Your task to perform on an android device: toggle wifi Image 0: 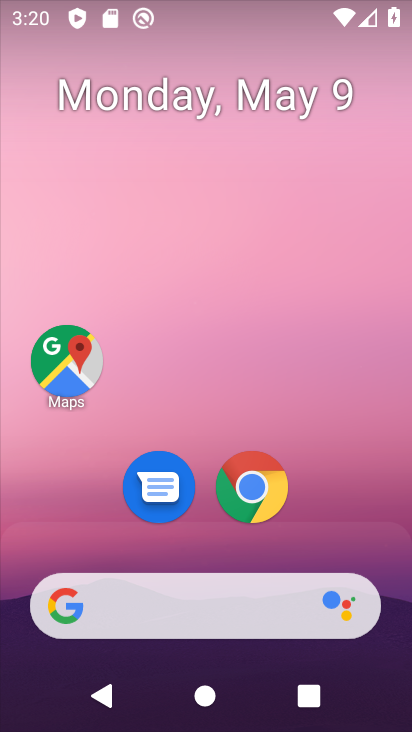
Step 0: drag from (198, 517) to (197, 175)
Your task to perform on an android device: toggle wifi Image 1: 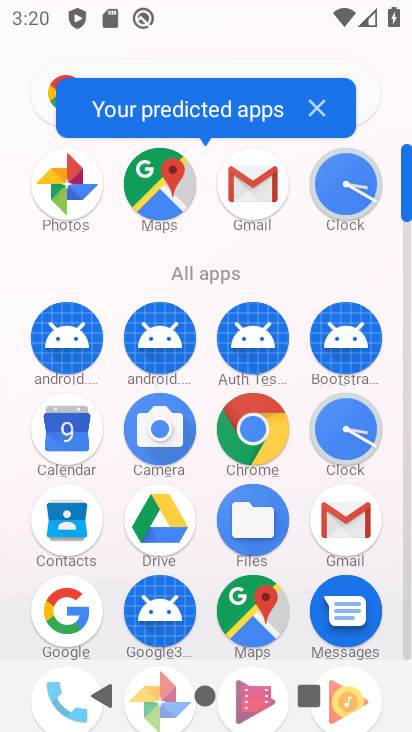
Step 1: drag from (175, 525) to (206, 119)
Your task to perform on an android device: toggle wifi Image 2: 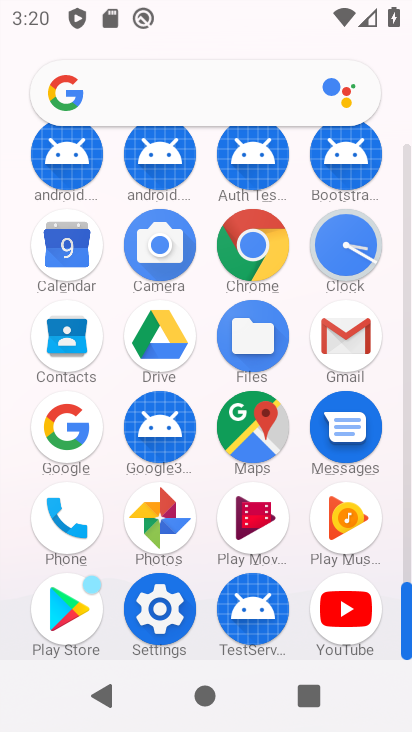
Step 2: click (148, 613)
Your task to perform on an android device: toggle wifi Image 3: 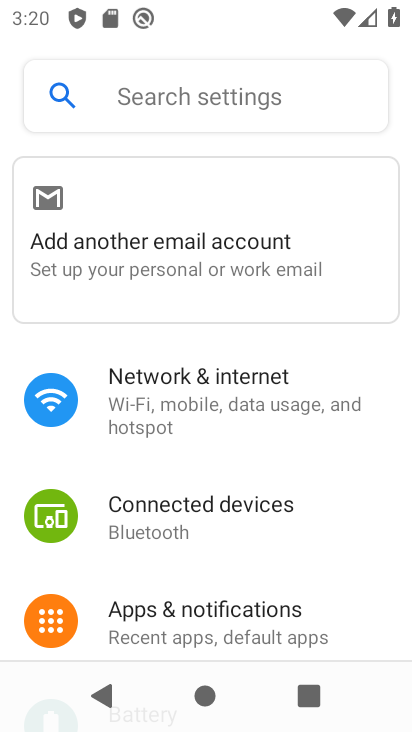
Step 3: click (186, 397)
Your task to perform on an android device: toggle wifi Image 4: 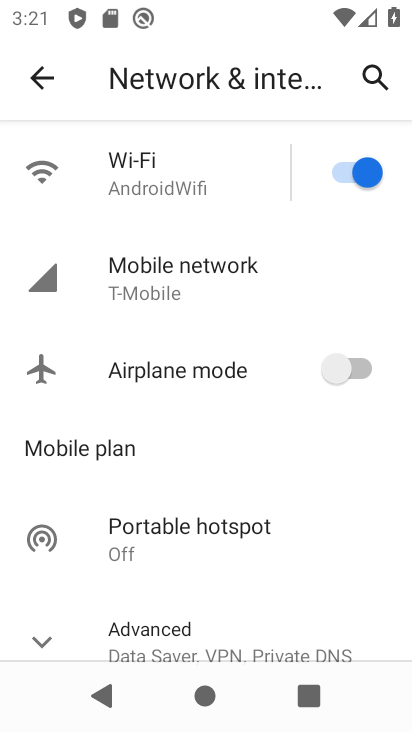
Step 4: click (165, 173)
Your task to perform on an android device: toggle wifi Image 5: 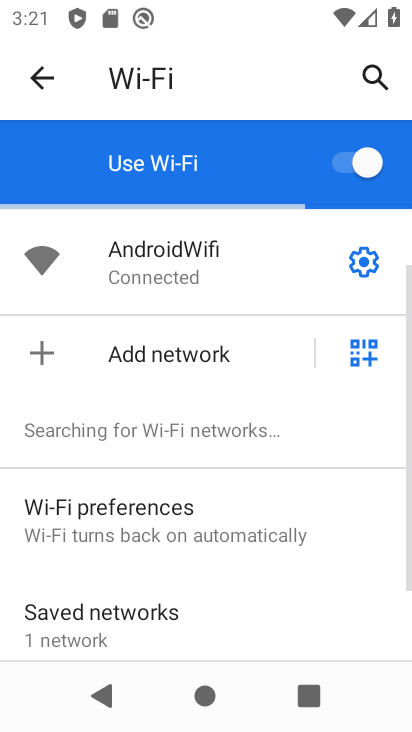
Step 5: click (370, 259)
Your task to perform on an android device: toggle wifi Image 6: 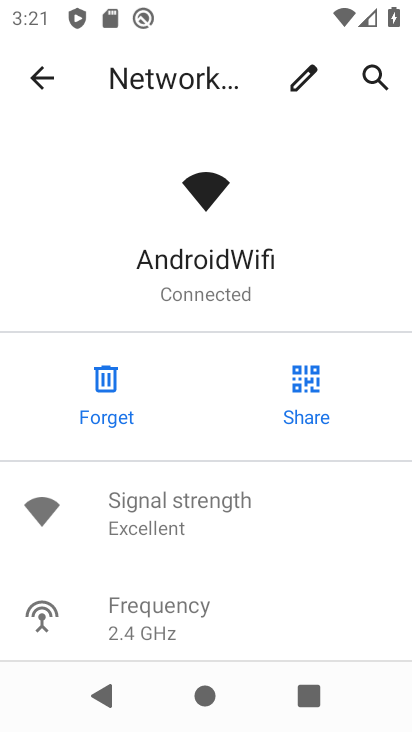
Step 6: drag from (162, 634) to (162, 379)
Your task to perform on an android device: toggle wifi Image 7: 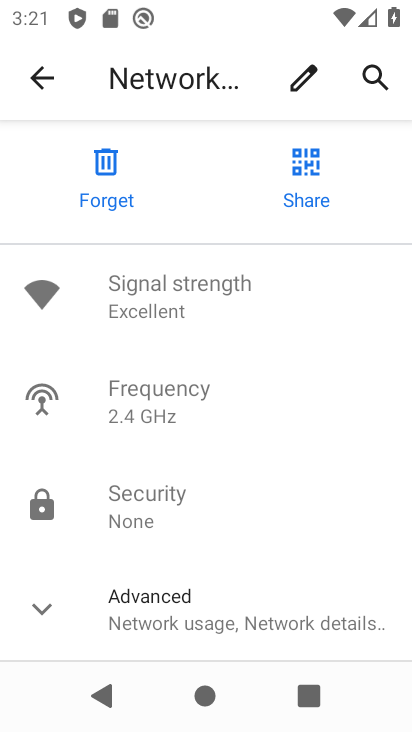
Step 7: click (157, 611)
Your task to perform on an android device: toggle wifi Image 8: 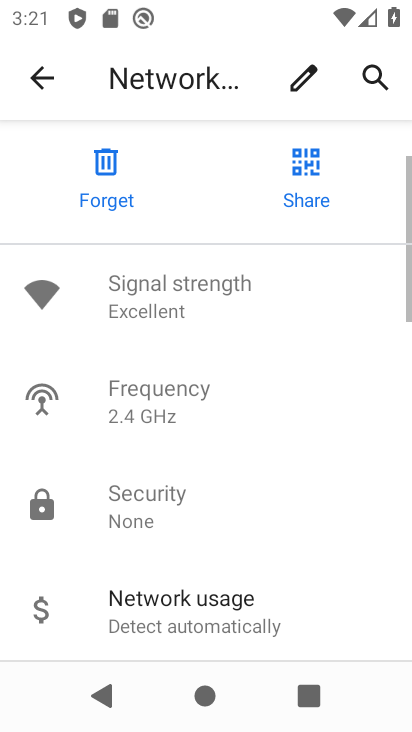
Step 8: task complete